Your task to perform on an android device: Set the phone to "Do not disturb". Image 0: 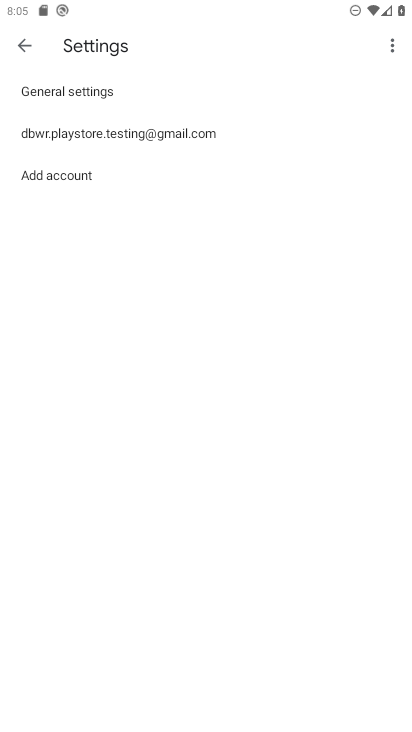
Step 0: press home button
Your task to perform on an android device: Set the phone to "Do not disturb". Image 1: 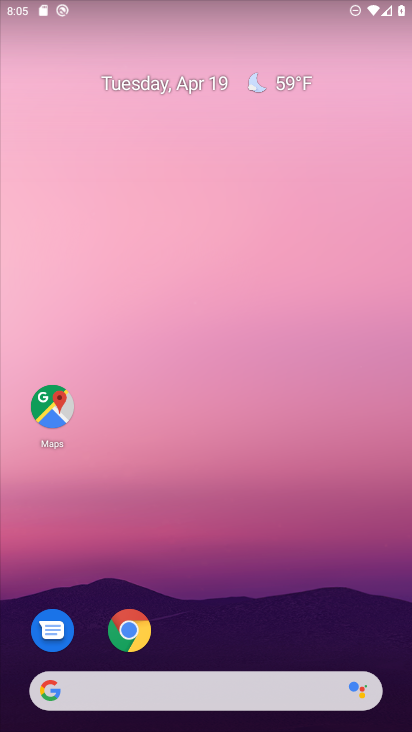
Step 1: drag from (188, 590) to (310, 72)
Your task to perform on an android device: Set the phone to "Do not disturb". Image 2: 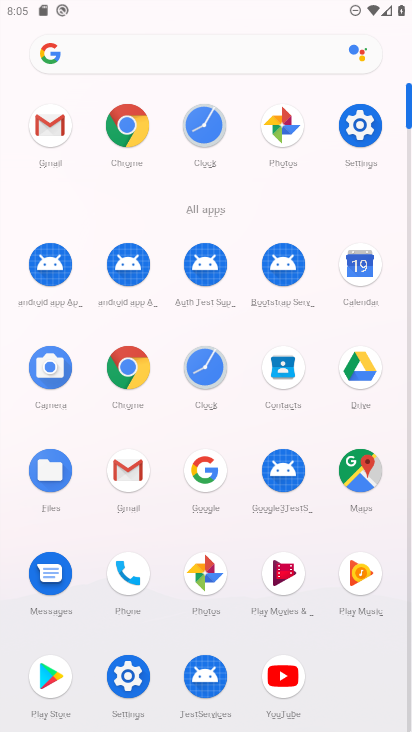
Step 2: click (355, 133)
Your task to perform on an android device: Set the phone to "Do not disturb". Image 3: 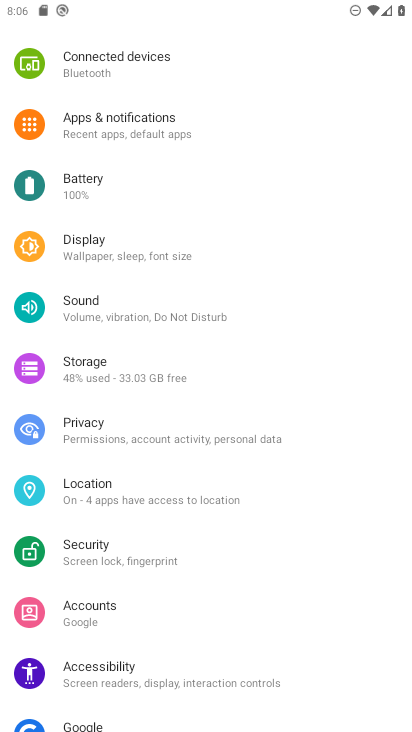
Step 3: click (162, 314)
Your task to perform on an android device: Set the phone to "Do not disturb". Image 4: 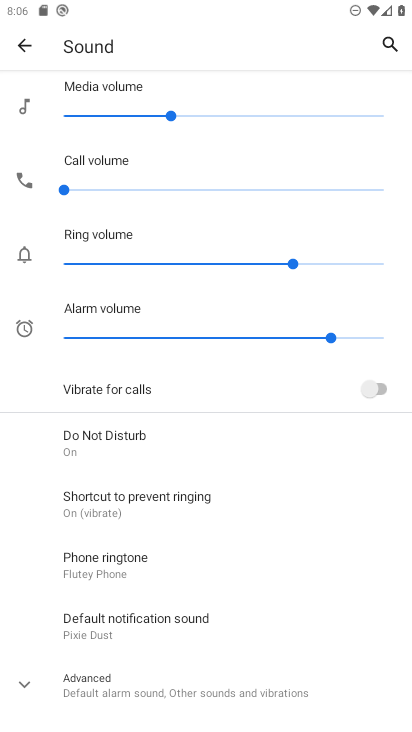
Step 4: click (124, 445)
Your task to perform on an android device: Set the phone to "Do not disturb". Image 5: 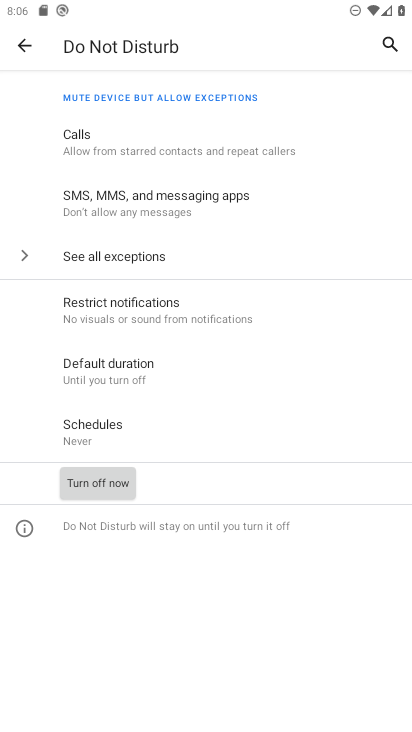
Step 5: task complete